Your task to perform on an android device: Turn off the flashlight Image 0: 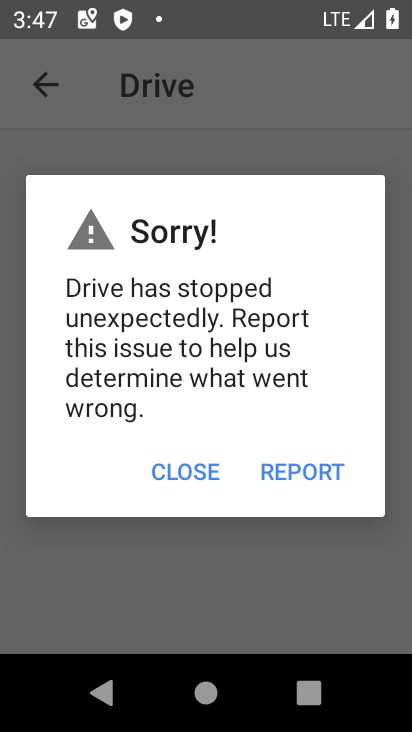
Step 0: drag from (277, 1) to (256, 463)
Your task to perform on an android device: Turn off the flashlight Image 1: 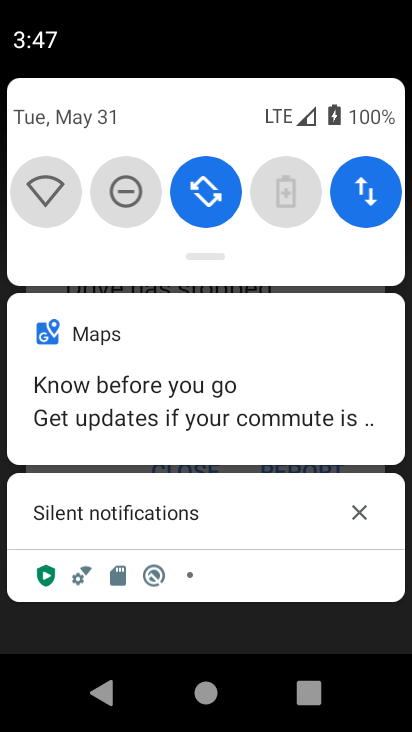
Step 1: task complete